Your task to perform on an android device: Go to Google Image 0: 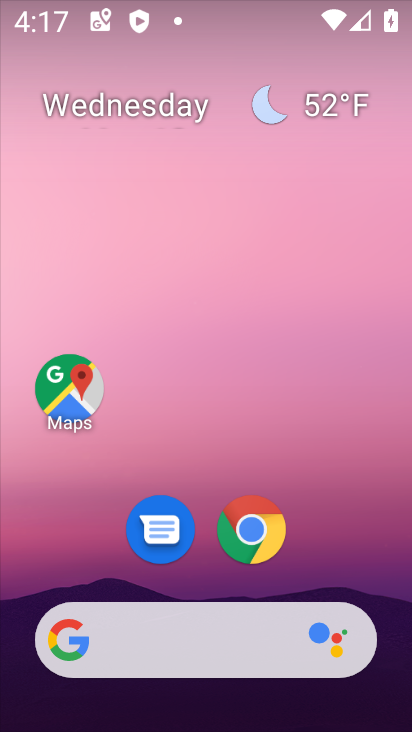
Step 0: drag from (331, 509) to (283, 103)
Your task to perform on an android device: Go to Google Image 1: 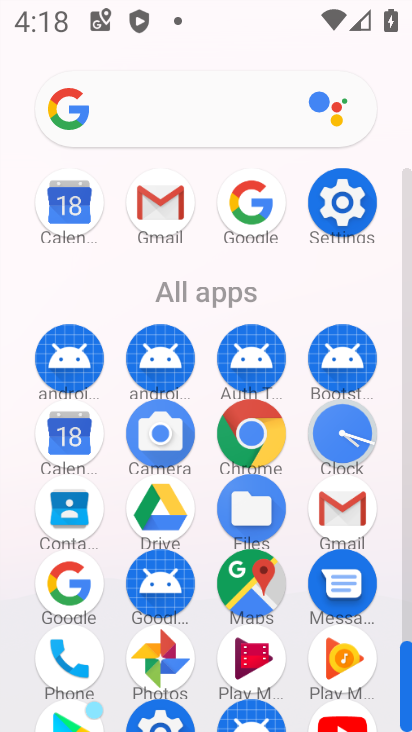
Step 1: click (246, 197)
Your task to perform on an android device: Go to Google Image 2: 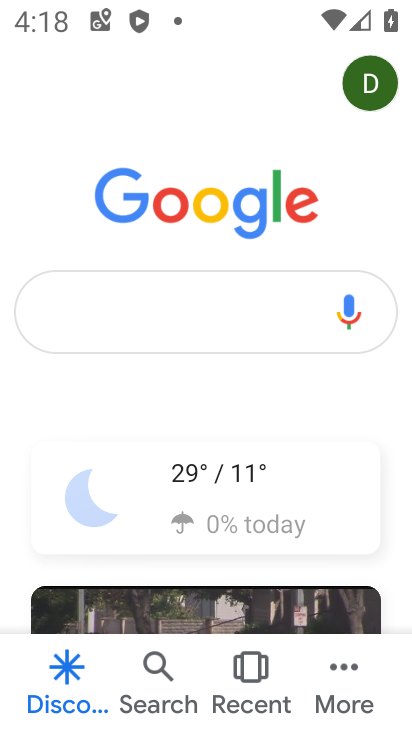
Step 2: task complete